Your task to perform on an android device: turn on improve location accuracy Image 0: 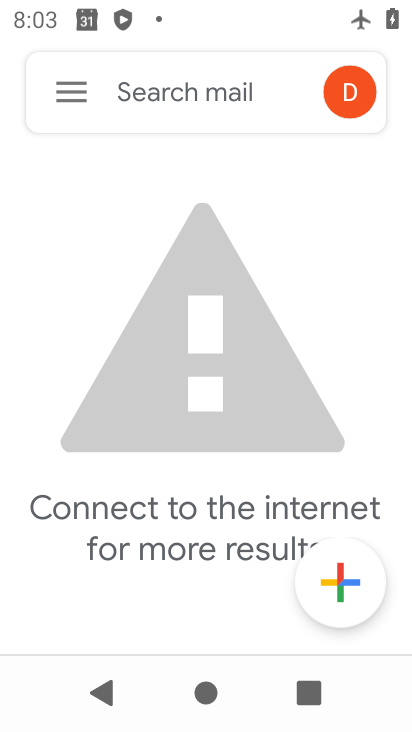
Step 0: press home button
Your task to perform on an android device: turn on improve location accuracy Image 1: 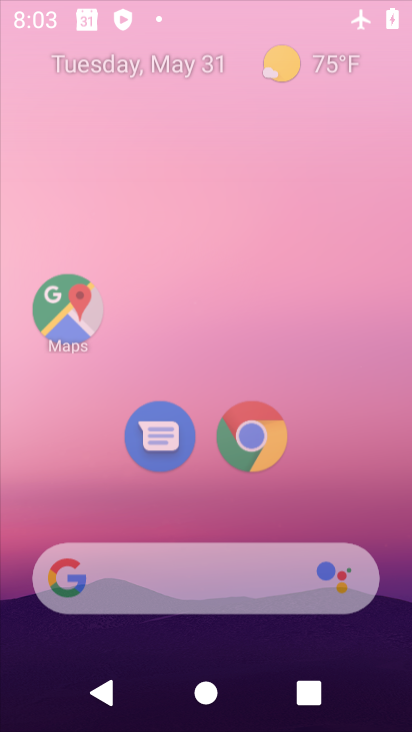
Step 1: drag from (180, 551) to (287, 70)
Your task to perform on an android device: turn on improve location accuracy Image 2: 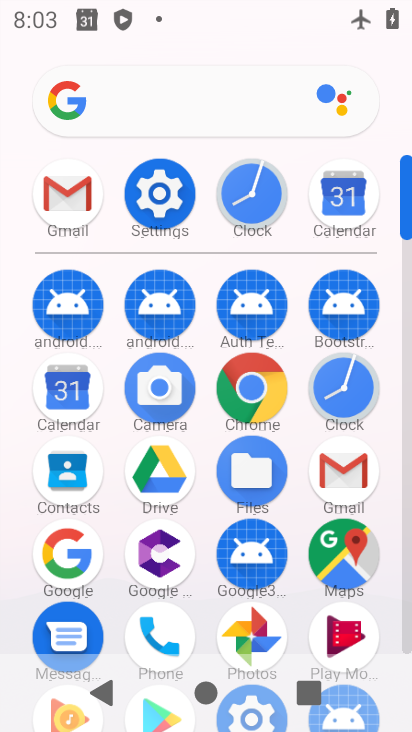
Step 2: click (176, 178)
Your task to perform on an android device: turn on improve location accuracy Image 3: 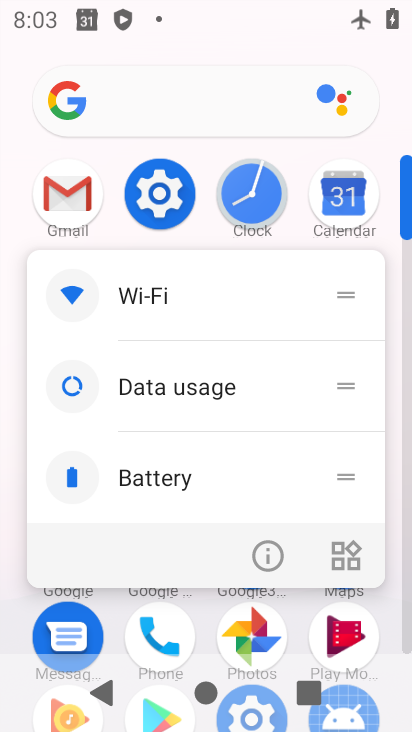
Step 3: click (285, 542)
Your task to perform on an android device: turn on improve location accuracy Image 4: 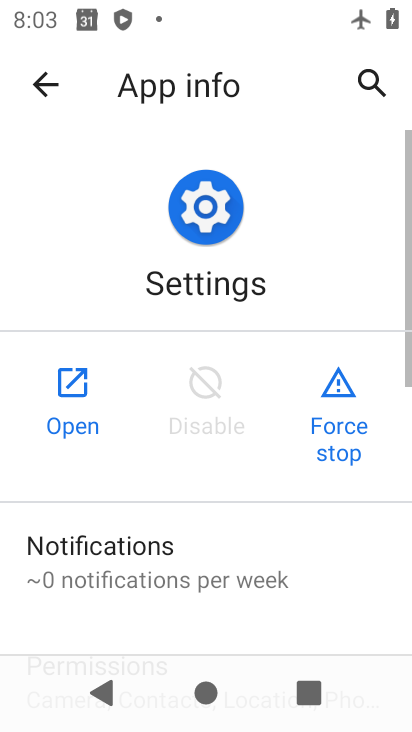
Step 4: click (85, 409)
Your task to perform on an android device: turn on improve location accuracy Image 5: 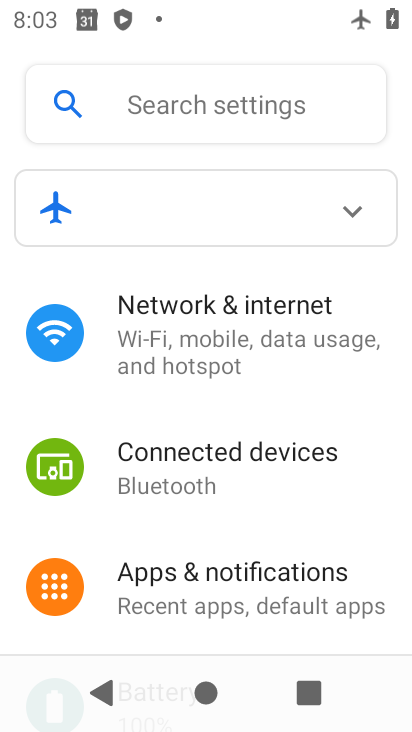
Step 5: drag from (204, 539) to (252, 121)
Your task to perform on an android device: turn on improve location accuracy Image 6: 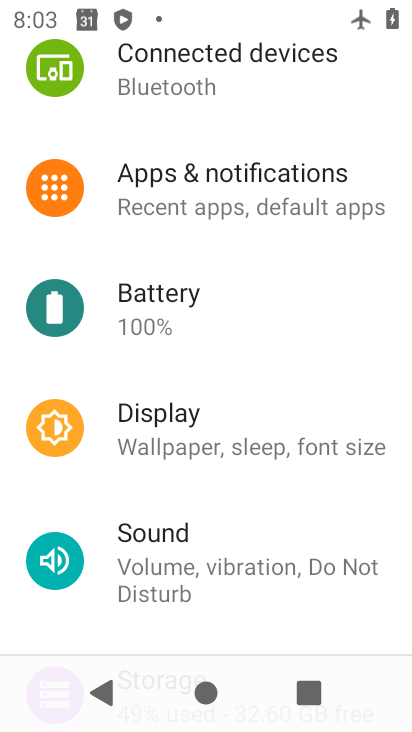
Step 6: drag from (197, 580) to (289, 123)
Your task to perform on an android device: turn on improve location accuracy Image 7: 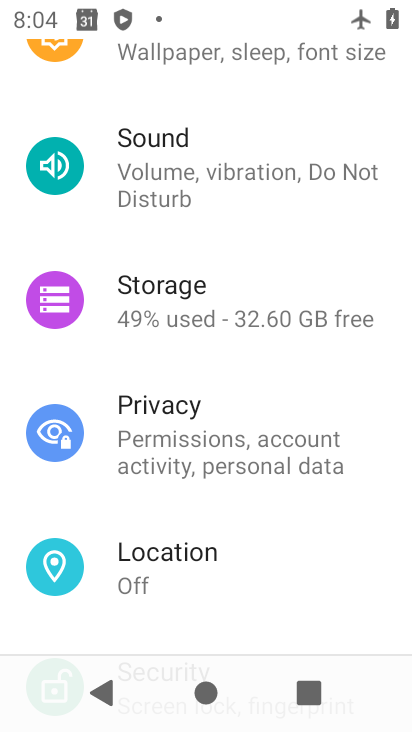
Step 7: drag from (194, 506) to (276, 257)
Your task to perform on an android device: turn on improve location accuracy Image 8: 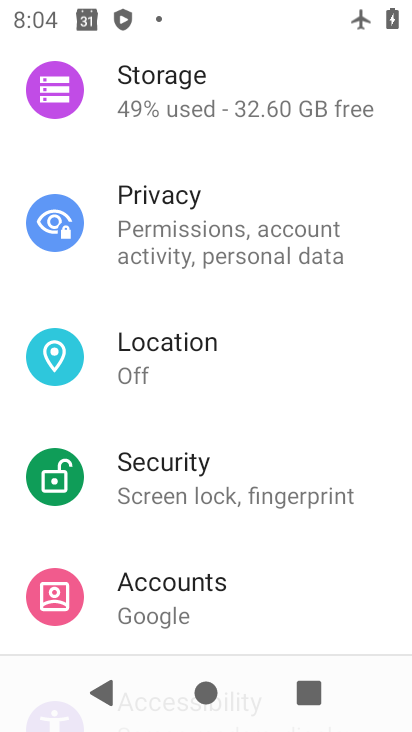
Step 8: drag from (222, 603) to (273, 146)
Your task to perform on an android device: turn on improve location accuracy Image 9: 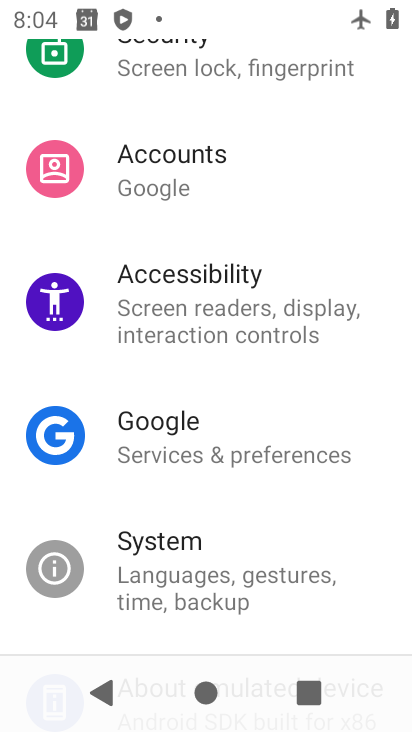
Step 9: drag from (224, 263) to (259, 620)
Your task to perform on an android device: turn on improve location accuracy Image 10: 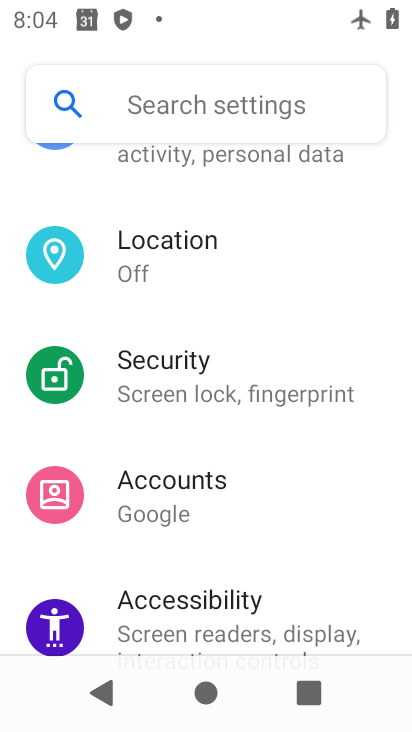
Step 10: drag from (219, 565) to (269, 348)
Your task to perform on an android device: turn on improve location accuracy Image 11: 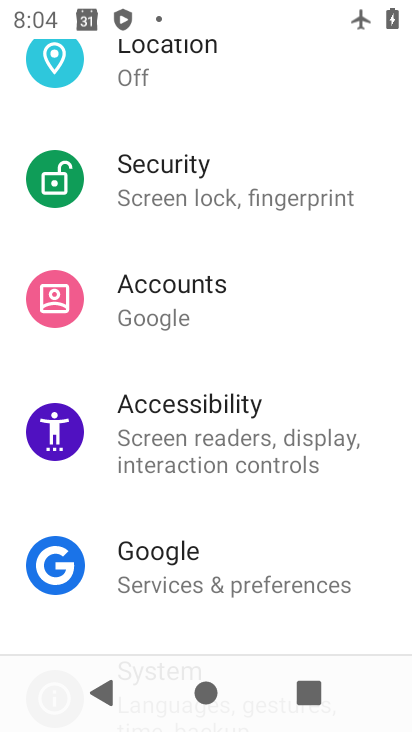
Step 11: drag from (281, 320) to (255, 727)
Your task to perform on an android device: turn on improve location accuracy Image 12: 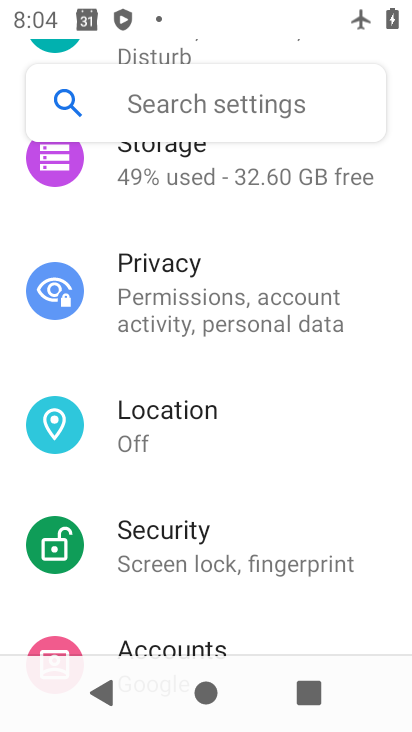
Step 12: drag from (181, 215) to (265, 650)
Your task to perform on an android device: turn on improve location accuracy Image 13: 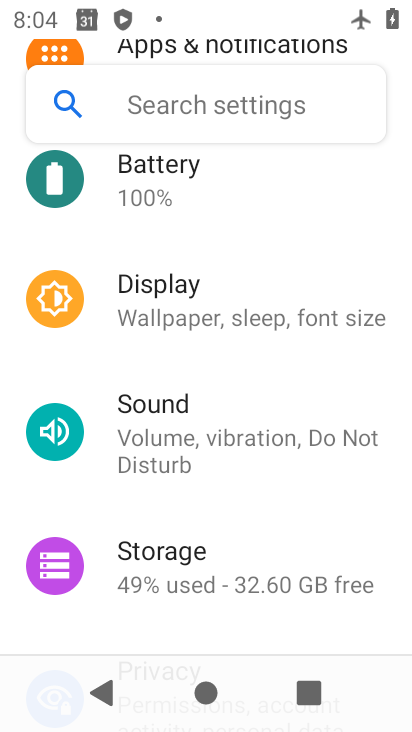
Step 13: drag from (231, 250) to (393, 24)
Your task to perform on an android device: turn on improve location accuracy Image 14: 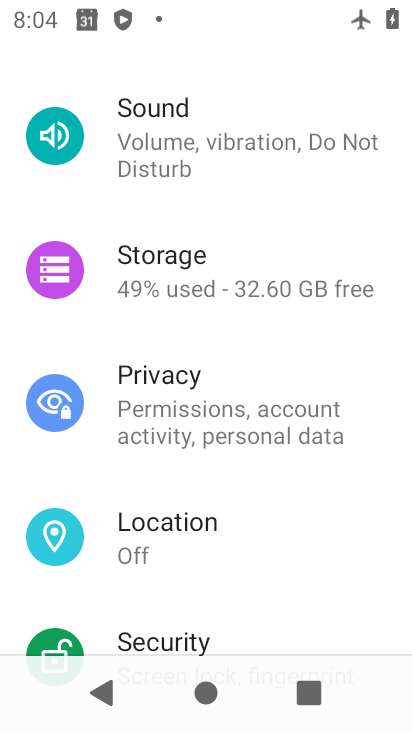
Step 14: click (189, 529)
Your task to perform on an android device: turn on improve location accuracy Image 15: 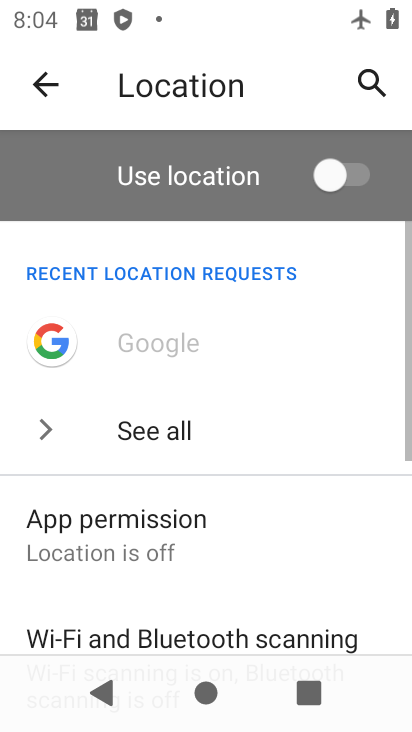
Step 15: drag from (227, 585) to (236, 222)
Your task to perform on an android device: turn on improve location accuracy Image 16: 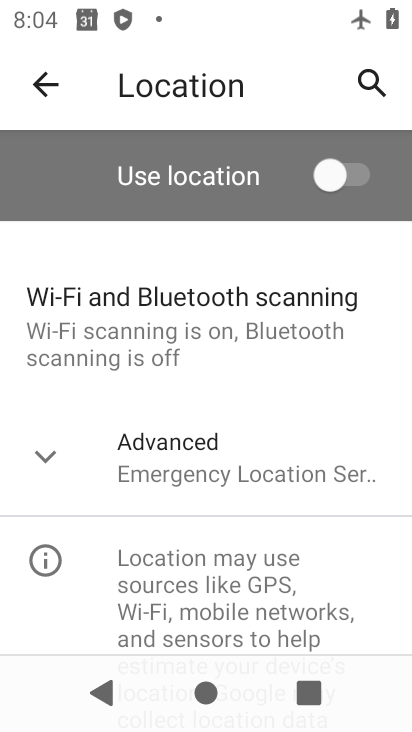
Step 16: click (130, 483)
Your task to perform on an android device: turn on improve location accuracy Image 17: 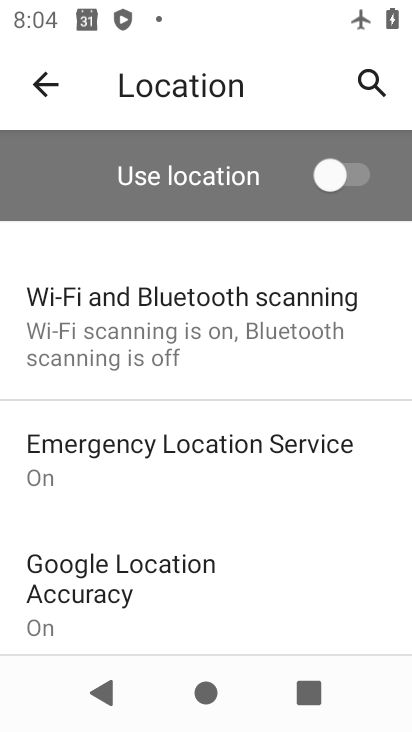
Step 17: click (152, 593)
Your task to perform on an android device: turn on improve location accuracy Image 18: 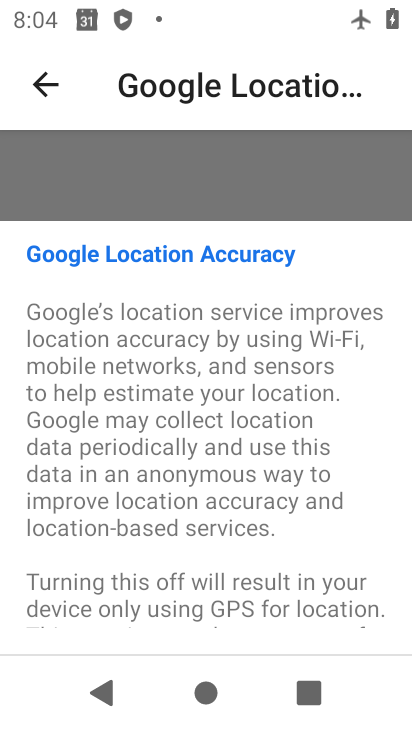
Step 18: task complete